Your task to perform on an android device: Search for Italian restaurants on Maps Image 0: 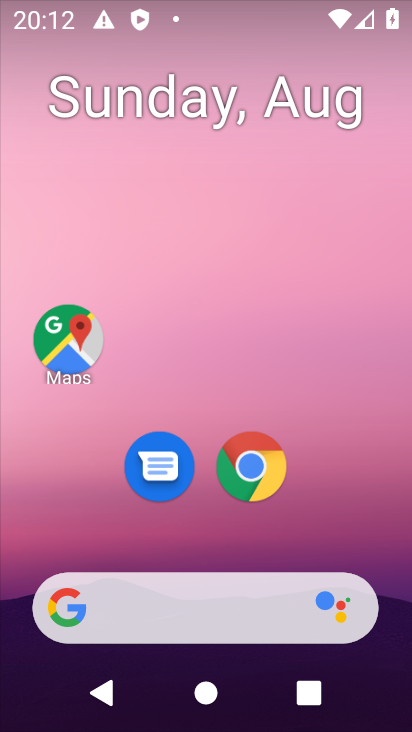
Step 0: click (75, 352)
Your task to perform on an android device: Search for Italian restaurants on Maps Image 1: 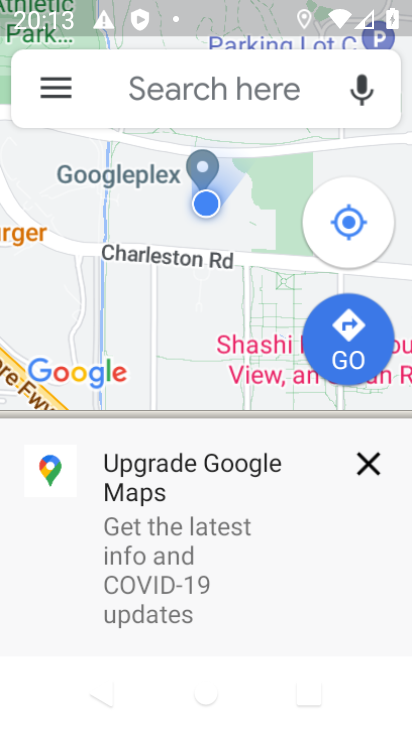
Step 1: click (180, 94)
Your task to perform on an android device: Search for Italian restaurants on Maps Image 2: 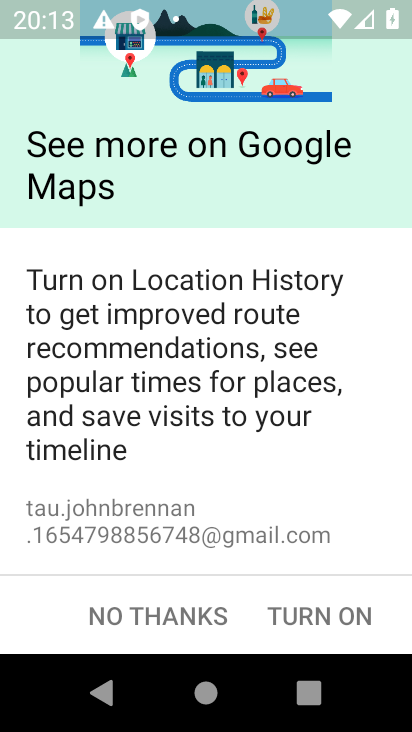
Step 2: click (302, 606)
Your task to perform on an android device: Search for Italian restaurants on Maps Image 3: 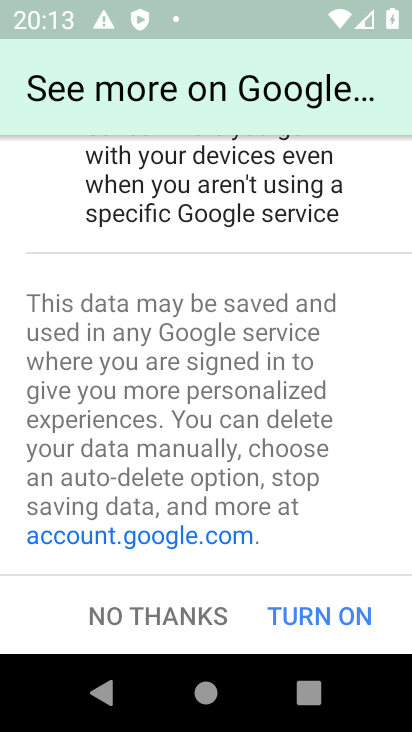
Step 3: click (302, 606)
Your task to perform on an android device: Search for Italian restaurants on Maps Image 4: 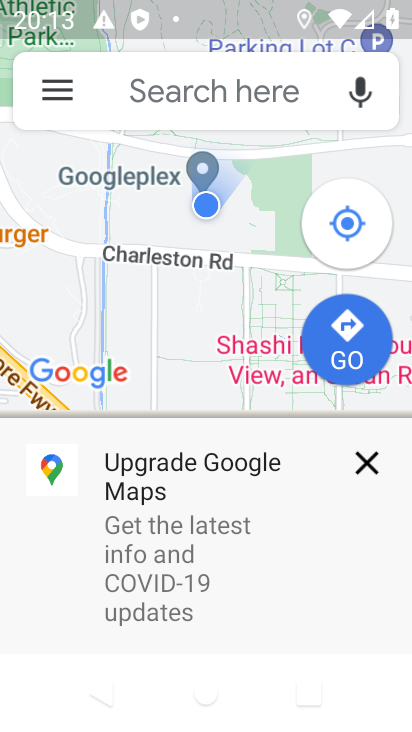
Step 4: click (185, 91)
Your task to perform on an android device: Search for Italian restaurants on Maps Image 5: 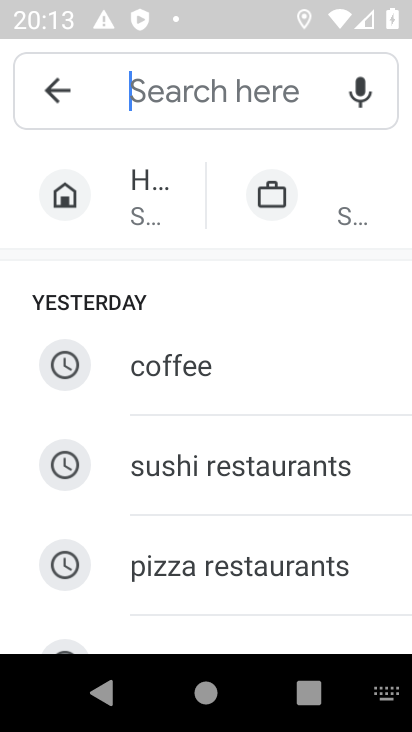
Step 5: type "itali"
Your task to perform on an android device: Search for Italian restaurants on Maps Image 6: 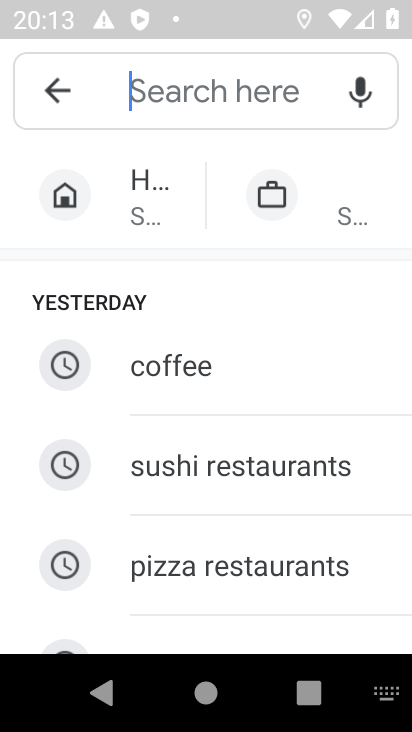
Step 6: drag from (149, 225) to (145, 100)
Your task to perform on an android device: Search for Italian restaurants on Maps Image 7: 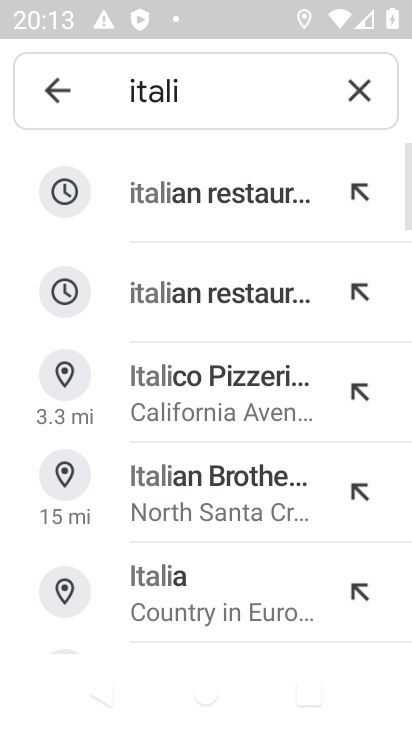
Step 7: click (233, 193)
Your task to perform on an android device: Search for Italian restaurants on Maps Image 8: 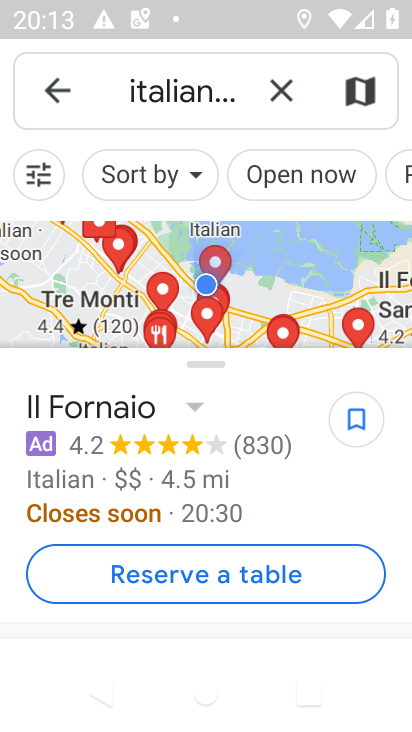
Step 8: click (232, 193)
Your task to perform on an android device: Search for Italian restaurants on Maps Image 9: 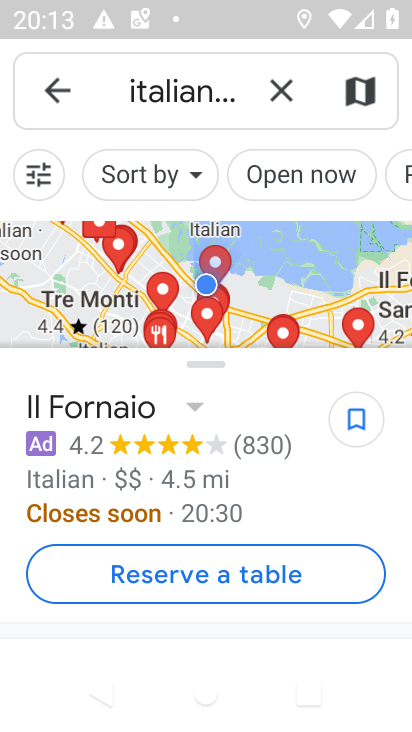
Step 9: click (232, 193)
Your task to perform on an android device: Search for Italian restaurants on Maps Image 10: 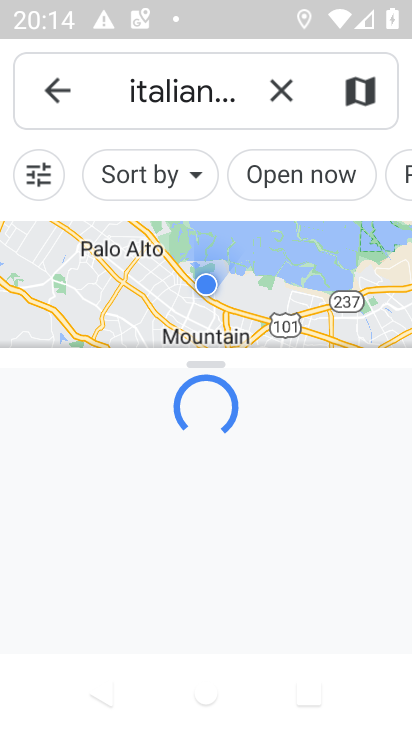
Step 10: task complete